Your task to perform on an android device: Open display settings Image 0: 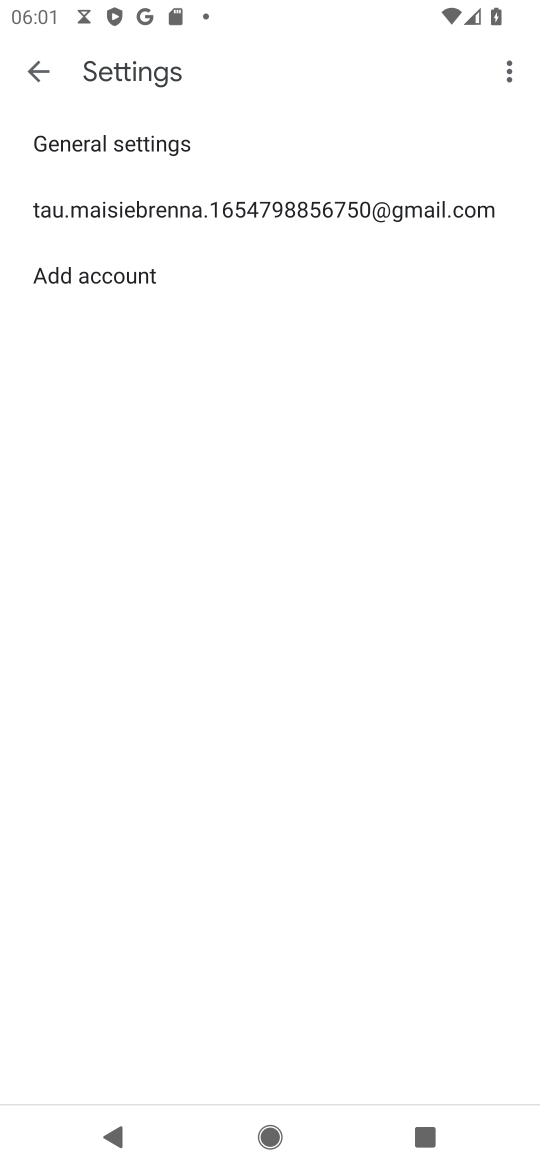
Step 0: press home button
Your task to perform on an android device: Open display settings Image 1: 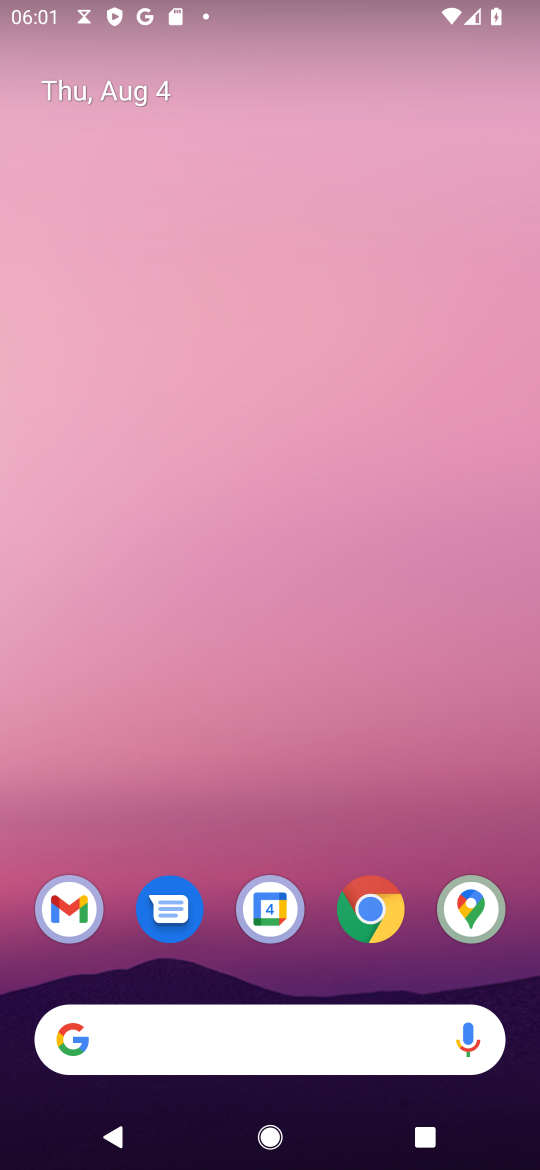
Step 1: drag from (212, 964) to (274, 230)
Your task to perform on an android device: Open display settings Image 2: 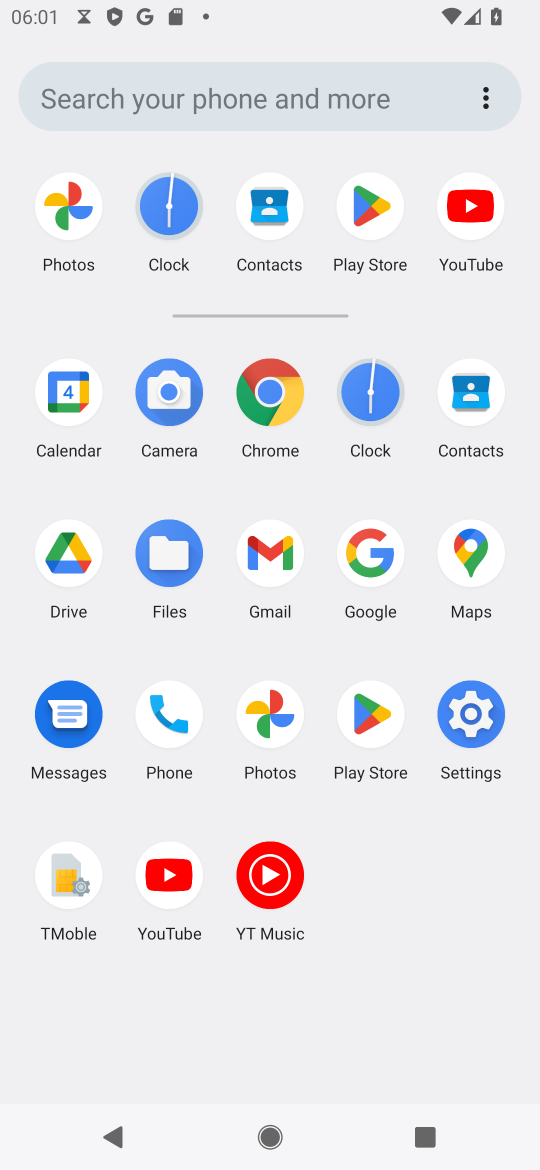
Step 2: click (463, 718)
Your task to perform on an android device: Open display settings Image 3: 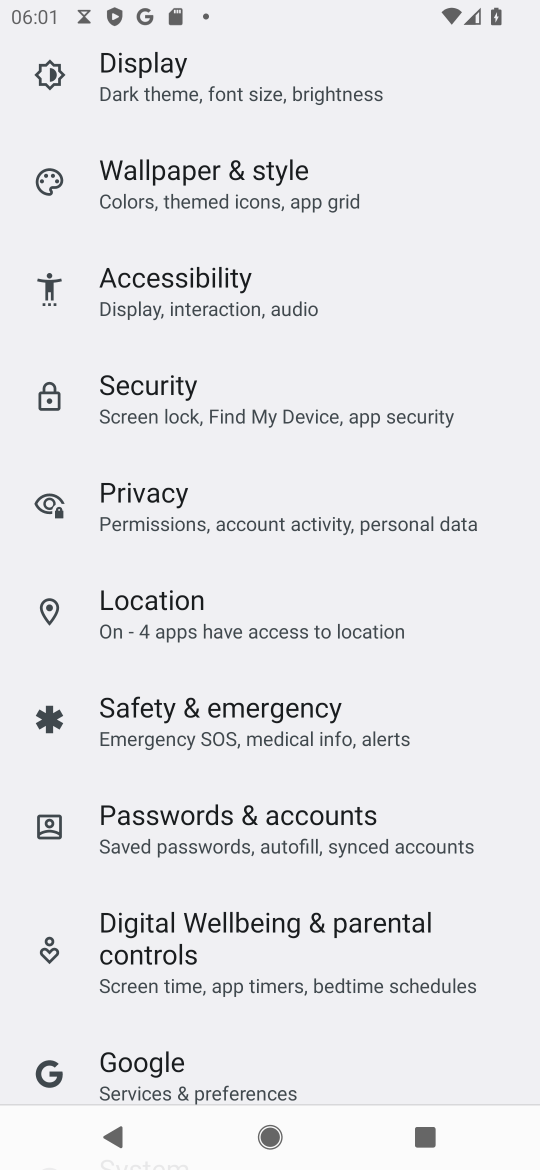
Step 3: click (119, 74)
Your task to perform on an android device: Open display settings Image 4: 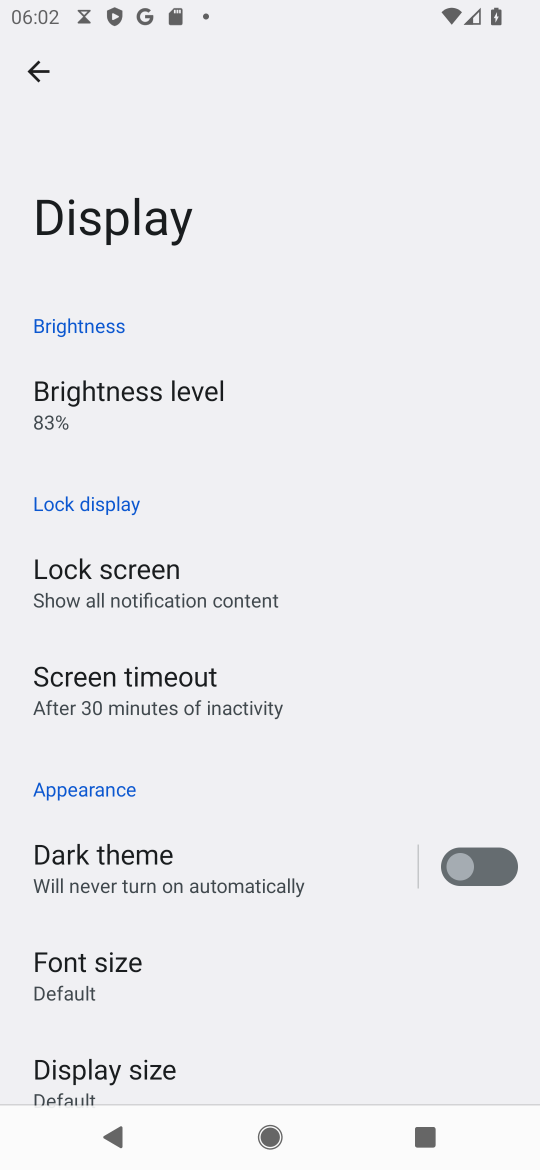
Step 4: task complete